Your task to perform on an android device: set the stopwatch Image 0: 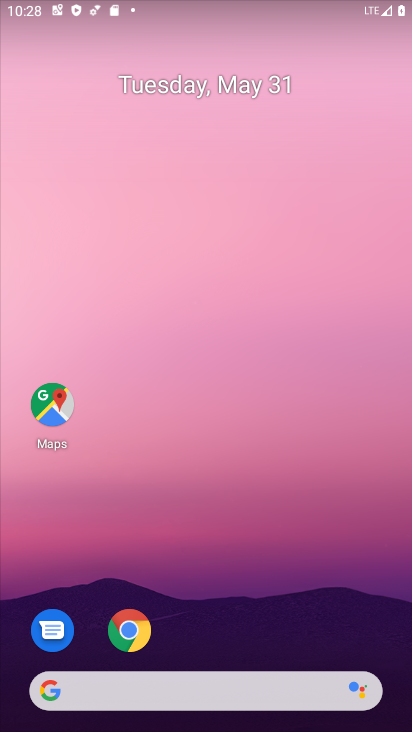
Step 0: drag from (227, 647) to (254, 186)
Your task to perform on an android device: set the stopwatch Image 1: 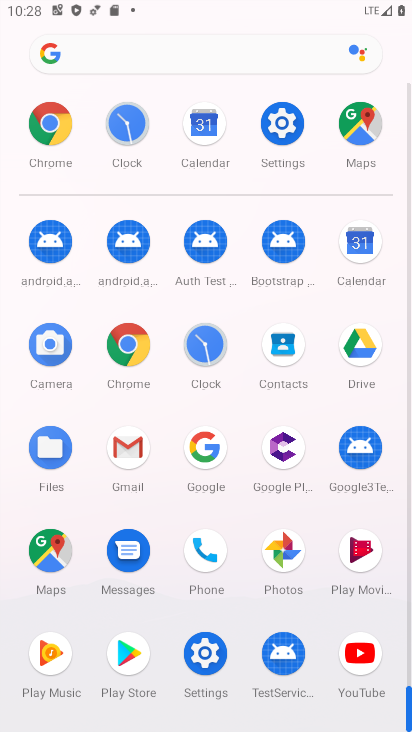
Step 1: click (206, 367)
Your task to perform on an android device: set the stopwatch Image 2: 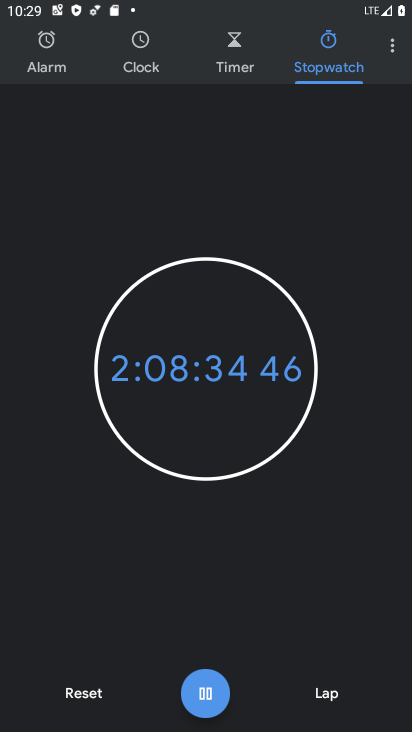
Step 2: task complete